Your task to perform on an android device: Show me productivity apps on the Play Store Image 0: 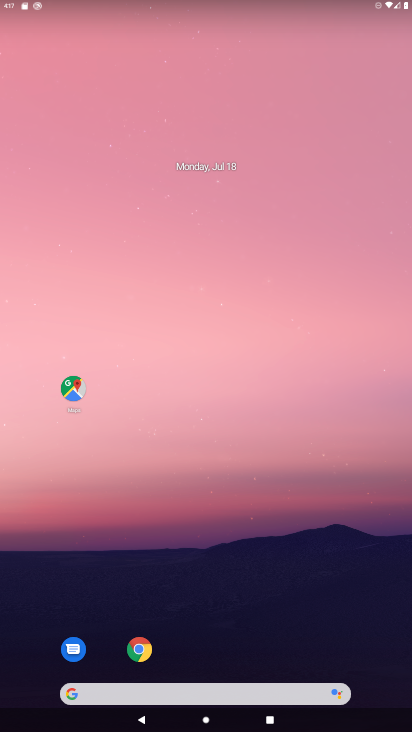
Step 0: drag from (186, 683) to (246, 138)
Your task to perform on an android device: Show me productivity apps on the Play Store Image 1: 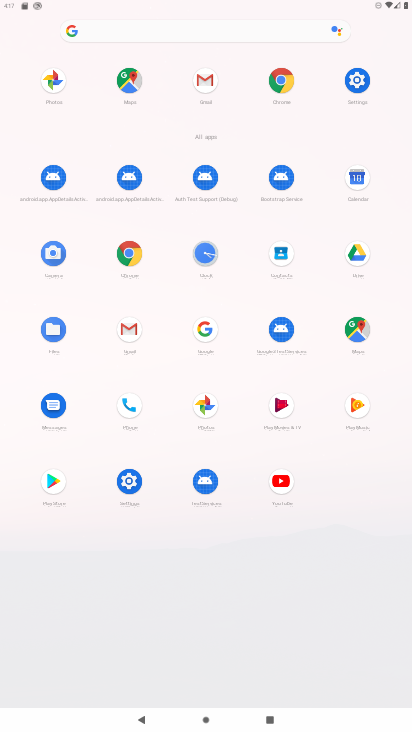
Step 1: click (61, 470)
Your task to perform on an android device: Show me productivity apps on the Play Store Image 2: 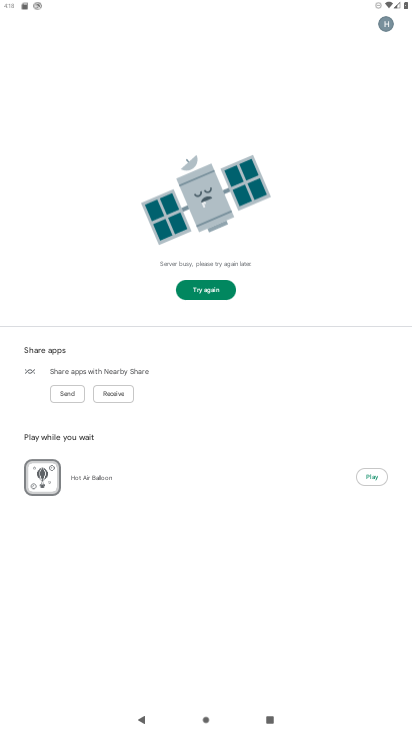
Step 2: task complete